Your task to perform on an android device: check google app version Image 0: 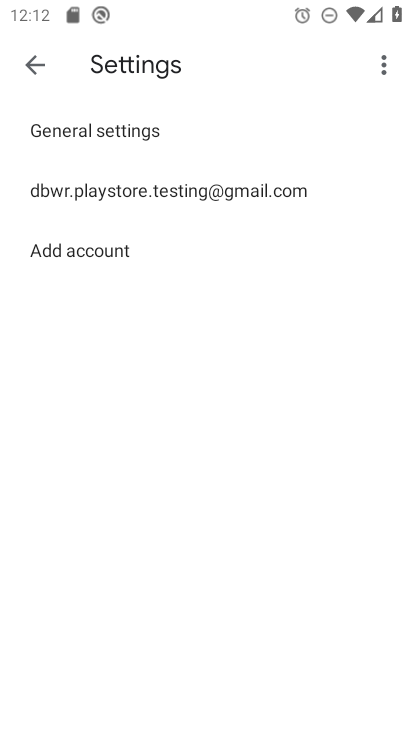
Step 0: press home button
Your task to perform on an android device: check google app version Image 1: 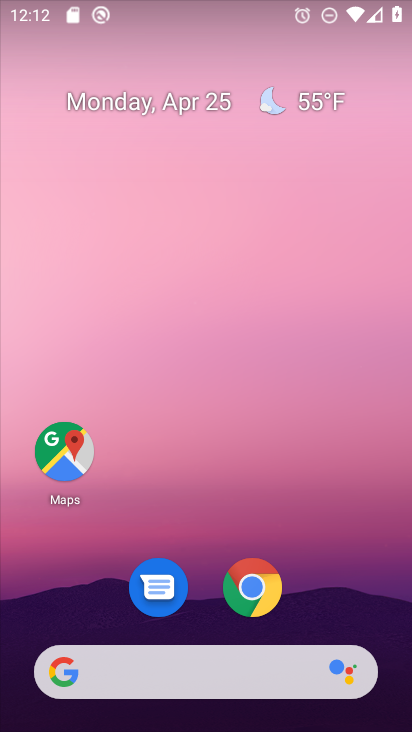
Step 1: drag from (360, 611) to (280, 41)
Your task to perform on an android device: check google app version Image 2: 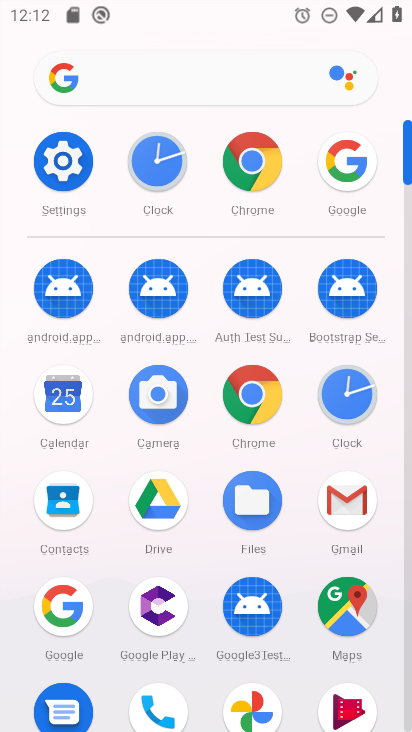
Step 2: click (49, 623)
Your task to perform on an android device: check google app version Image 3: 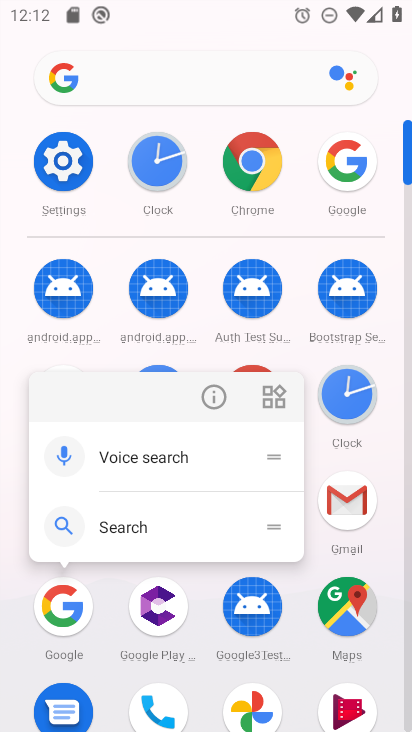
Step 3: click (217, 389)
Your task to perform on an android device: check google app version Image 4: 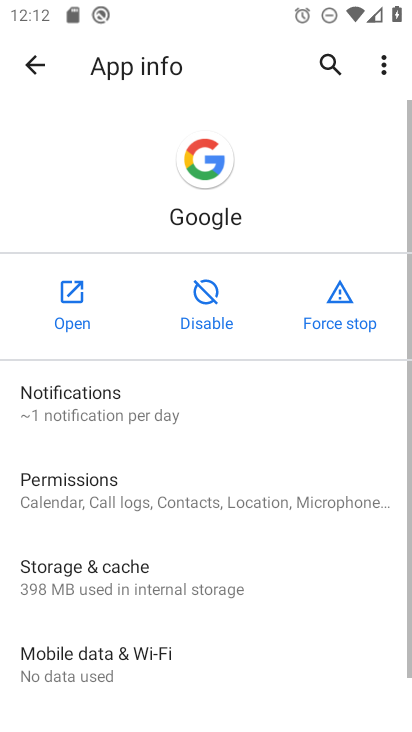
Step 4: drag from (256, 587) to (192, 0)
Your task to perform on an android device: check google app version Image 5: 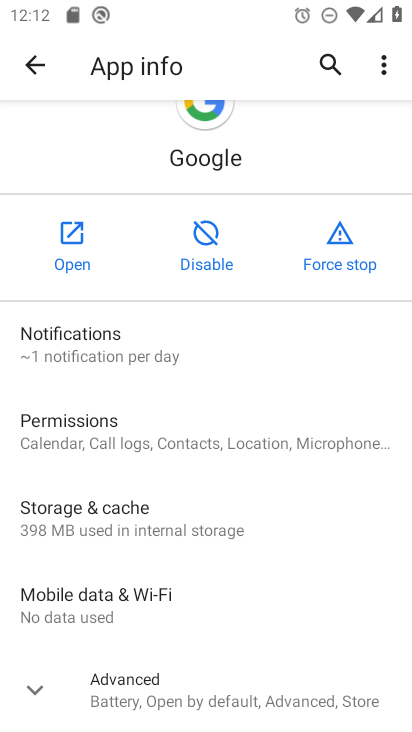
Step 5: click (138, 709)
Your task to perform on an android device: check google app version Image 6: 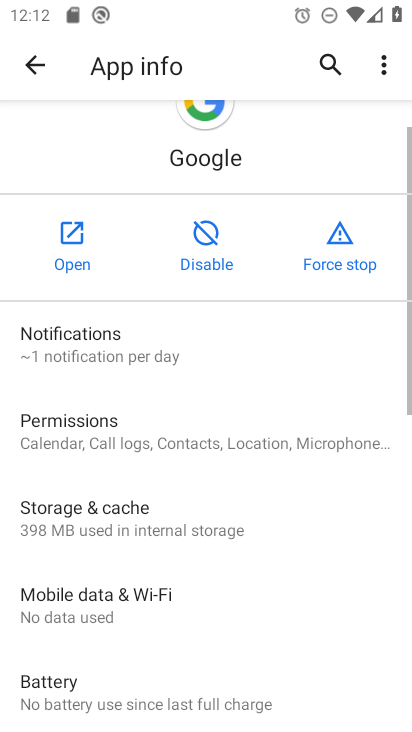
Step 6: task complete